Your task to perform on an android device: turn on improve location accuracy Image 0: 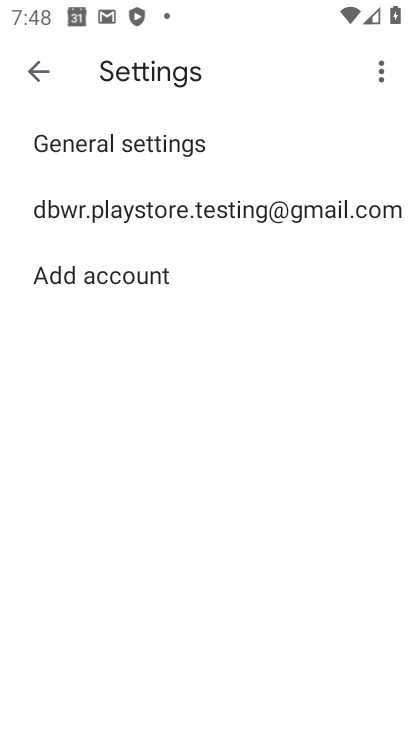
Step 0: press home button
Your task to perform on an android device: turn on improve location accuracy Image 1: 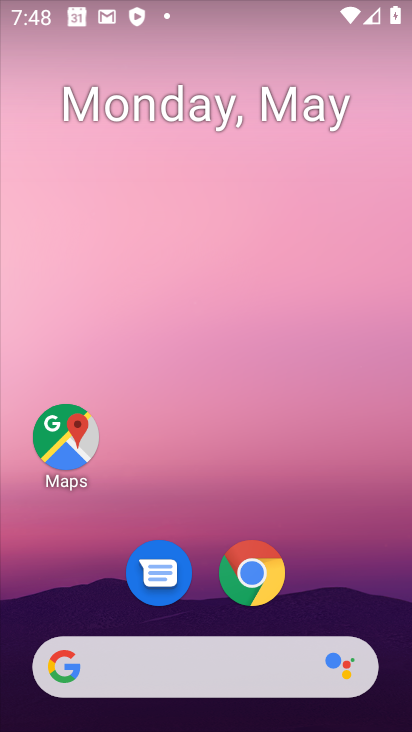
Step 1: drag from (139, 668) to (191, 187)
Your task to perform on an android device: turn on improve location accuracy Image 2: 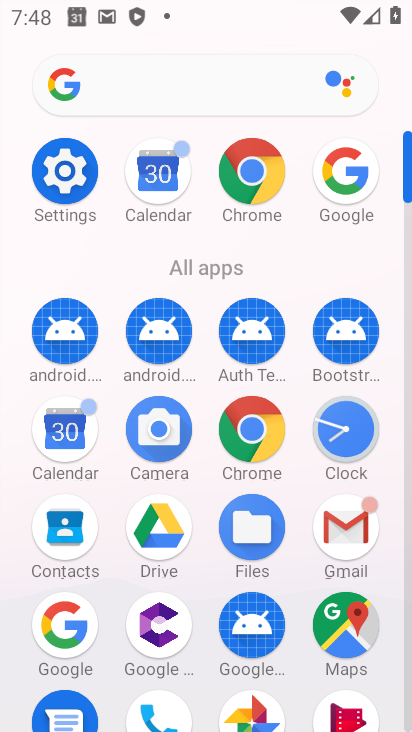
Step 2: click (62, 208)
Your task to perform on an android device: turn on improve location accuracy Image 3: 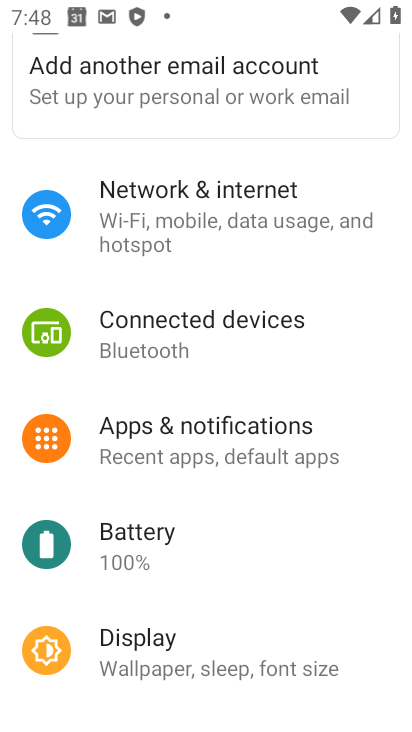
Step 3: drag from (190, 560) to (240, 261)
Your task to perform on an android device: turn on improve location accuracy Image 4: 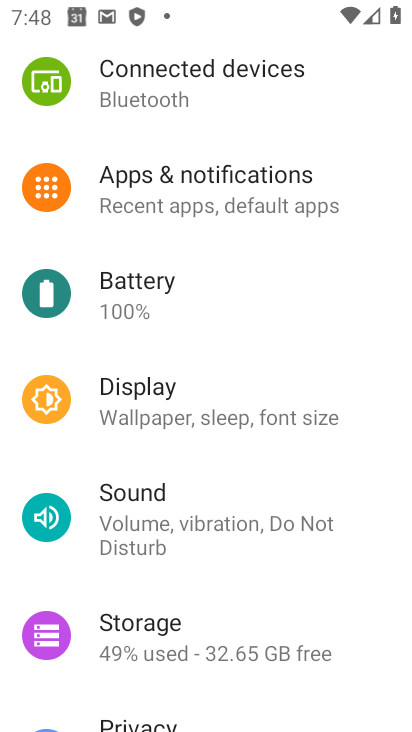
Step 4: drag from (192, 574) to (188, 345)
Your task to perform on an android device: turn on improve location accuracy Image 5: 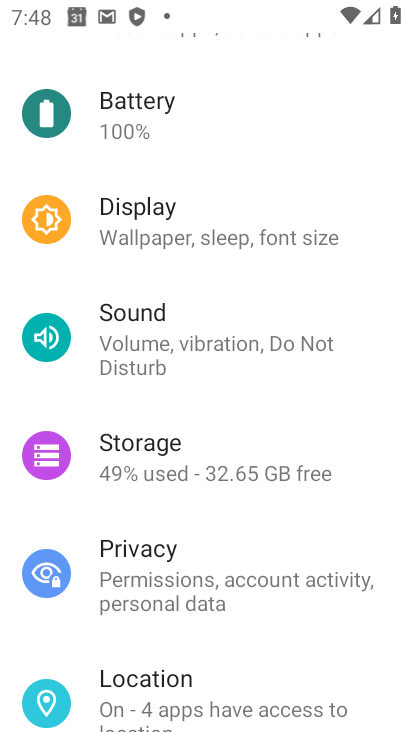
Step 5: click (159, 686)
Your task to perform on an android device: turn on improve location accuracy Image 6: 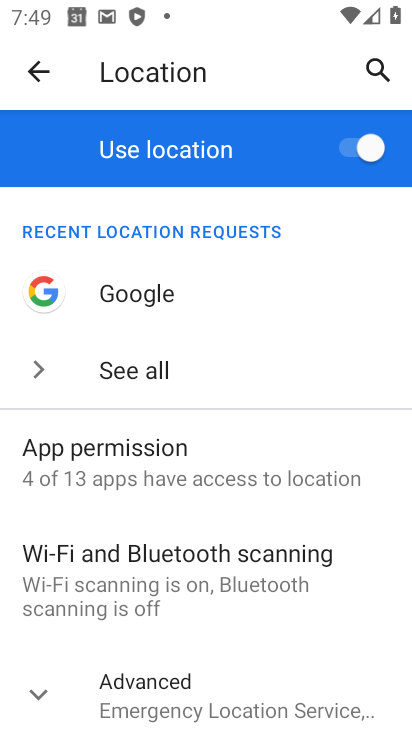
Step 6: drag from (174, 555) to (208, 303)
Your task to perform on an android device: turn on improve location accuracy Image 7: 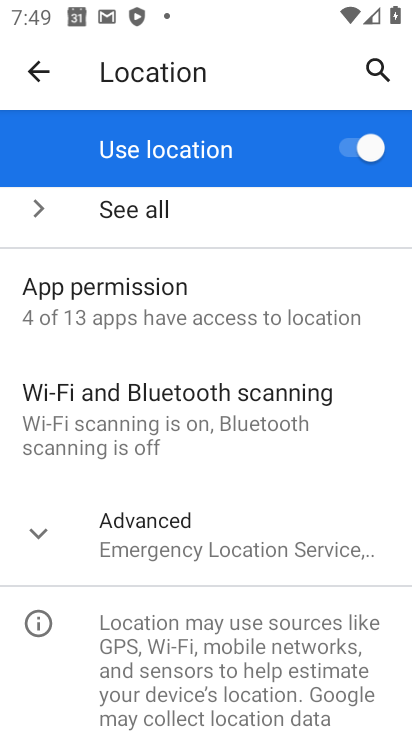
Step 7: click (125, 523)
Your task to perform on an android device: turn on improve location accuracy Image 8: 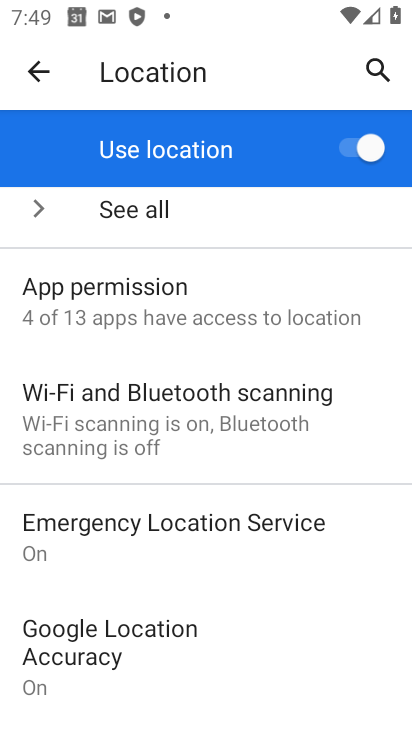
Step 8: drag from (130, 594) to (153, 421)
Your task to perform on an android device: turn on improve location accuracy Image 9: 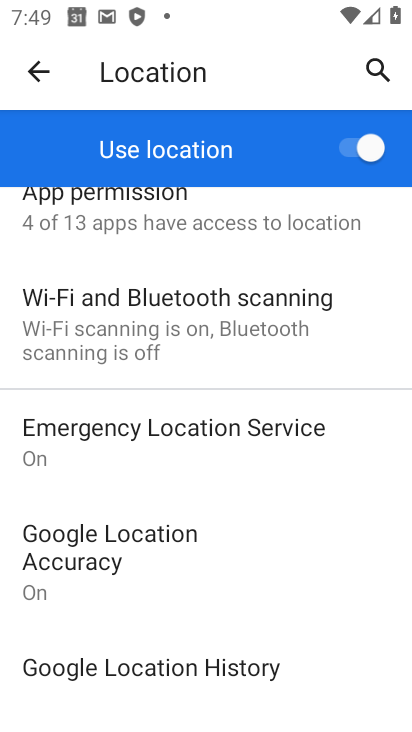
Step 9: click (155, 575)
Your task to perform on an android device: turn on improve location accuracy Image 10: 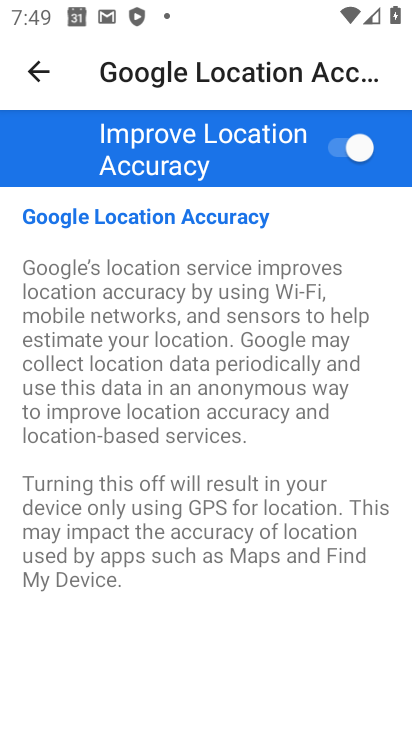
Step 10: task complete